Your task to perform on an android device: check out phone information Image 0: 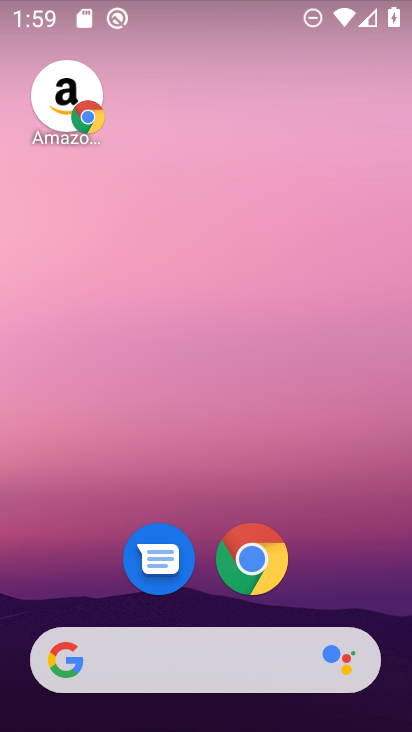
Step 0: drag from (303, 585) to (309, 160)
Your task to perform on an android device: check out phone information Image 1: 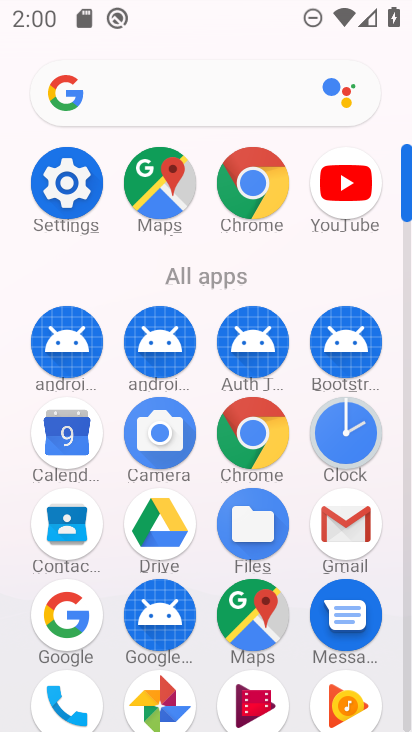
Step 1: click (74, 191)
Your task to perform on an android device: check out phone information Image 2: 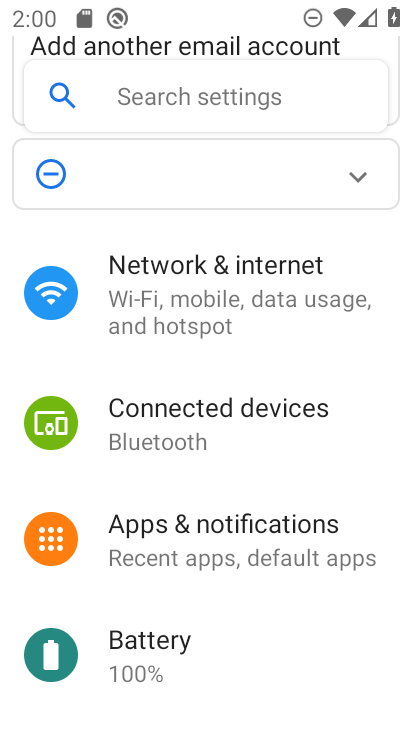
Step 2: drag from (249, 623) to (238, 109)
Your task to perform on an android device: check out phone information Image 3: 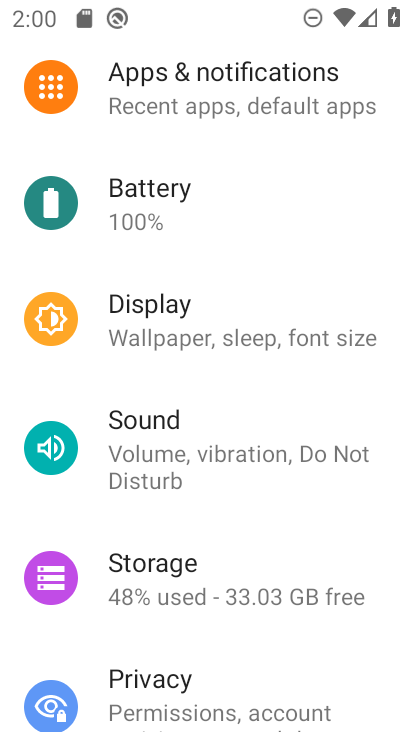
Step 3: drag from (253, 600) to (226, 187)
Your task to perform on an android device: check out phone information Image 4: 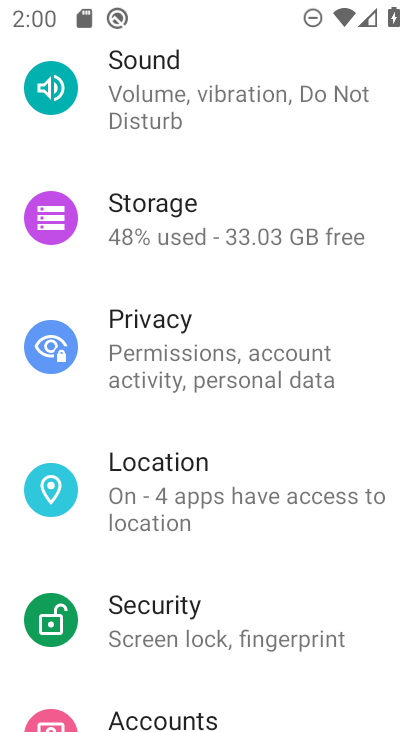
Step 4: drag from (240, 621) to (256, 175)
Your task to perform on an android device: check out phone information Image 5: 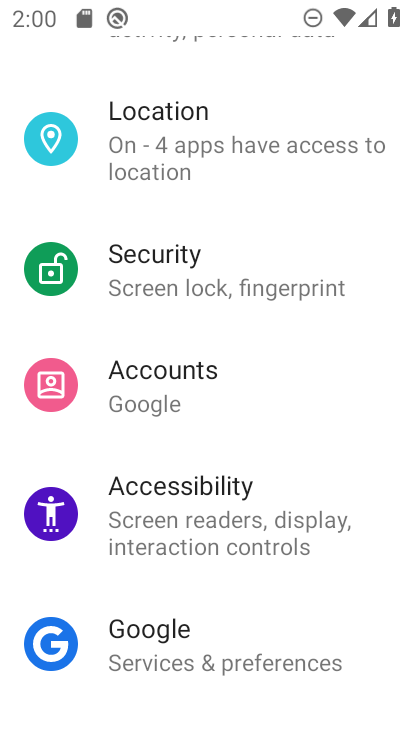
Step 5: drag from (238, 659) to (260, 227)
Your task to perform on an android device: check out phone information Image 6: 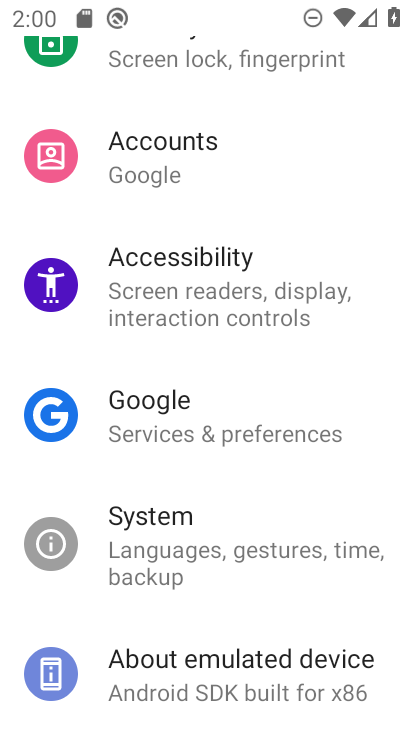
Step 6: drag from (246, 646) to (261, 340)
Your task to perform on an android device: check out phone information Image 7: 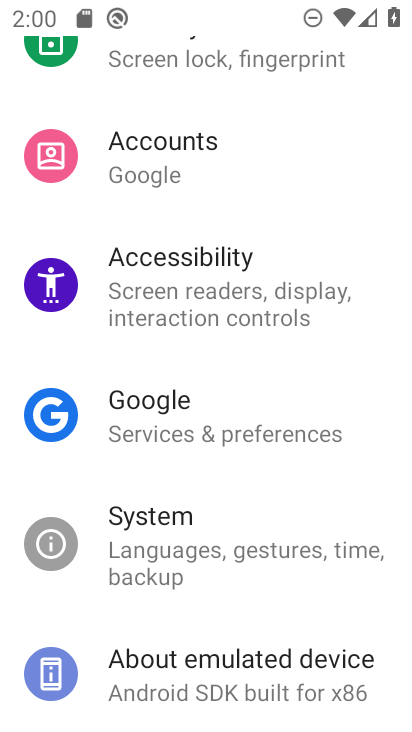
Step 7: click (228, 677)
Your task to perform on an android device: check out phone information Image 8: 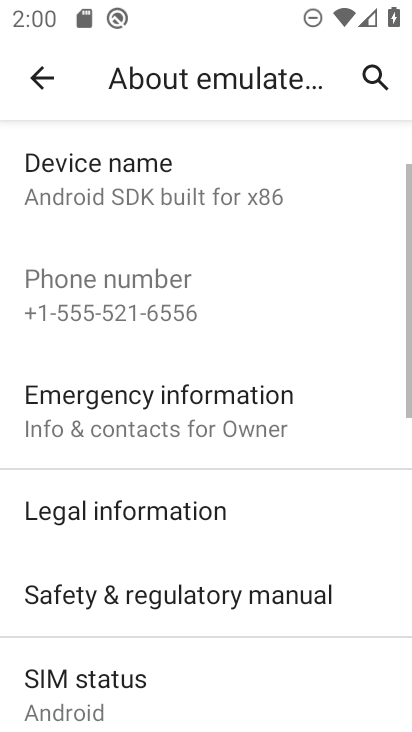
Step 8: drag from (220, 612) to (263, 217)
Your task to perform on an android device: check out phone information Image 9: 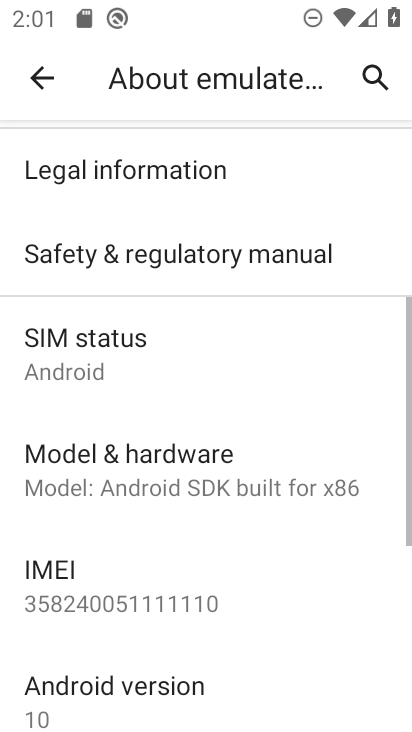
Step 9: click (246, 470)
Your task to perform on an android device: check out phone information Image 10: 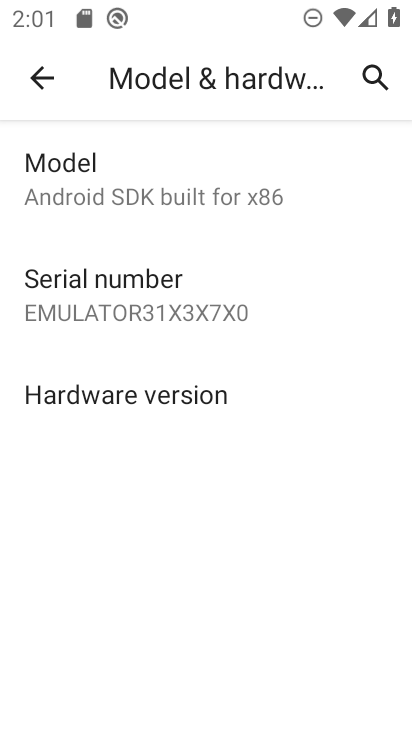
Step 10: task complete